Your task to perform on an android device: Open Android settings Image 0: 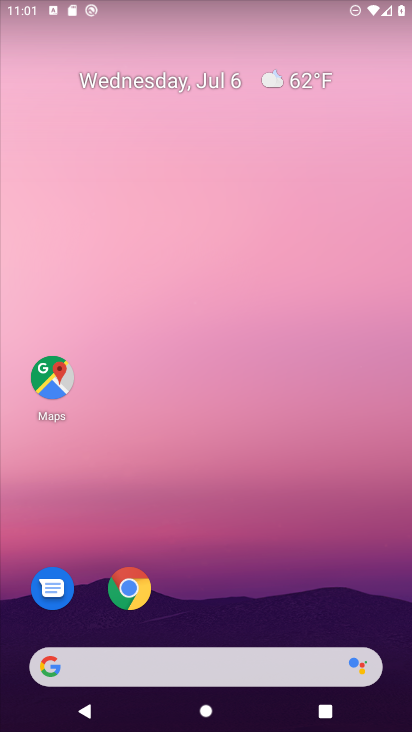
Step 0: drag from (383, 607) to (345, 51)
Your task to perform on an android device: Open Android settings Image 1: 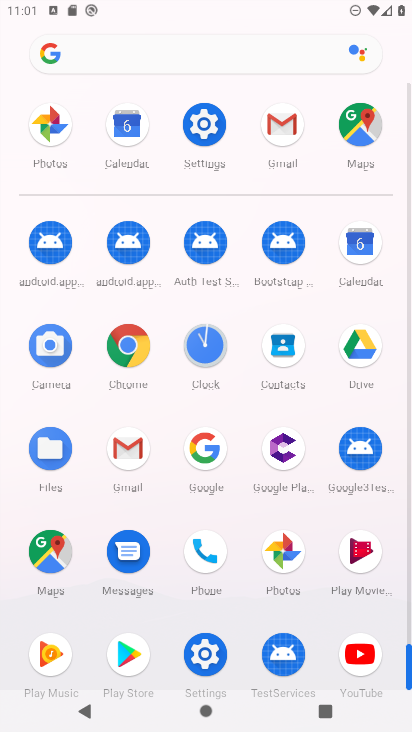
Step 1: click (411, 589)
Your task to perform on an android device: Open Android settings Image 2: 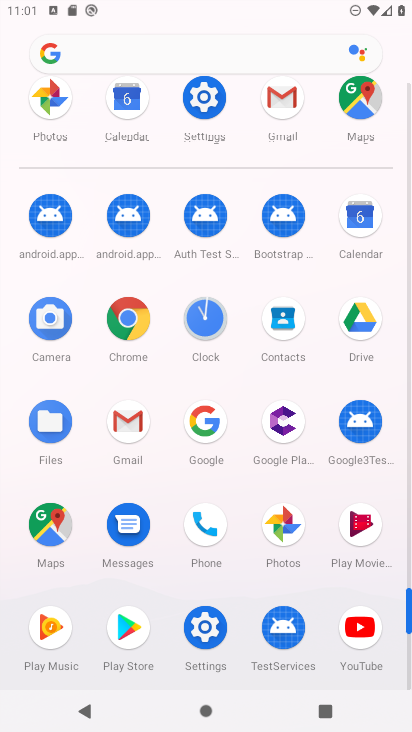
Step 2: click (203, 631)
Your task to perform on an android device: Open Android settings Image 3: 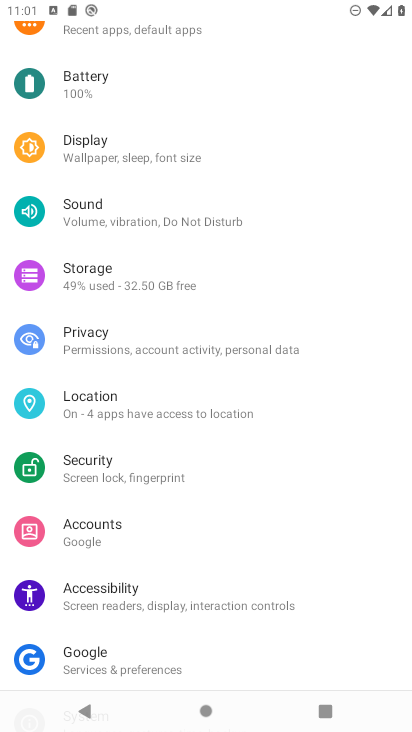
Step 3: drag from (323, 656) to (317, 187)
Your task to perform on an android device: Open Android settings Image 4: 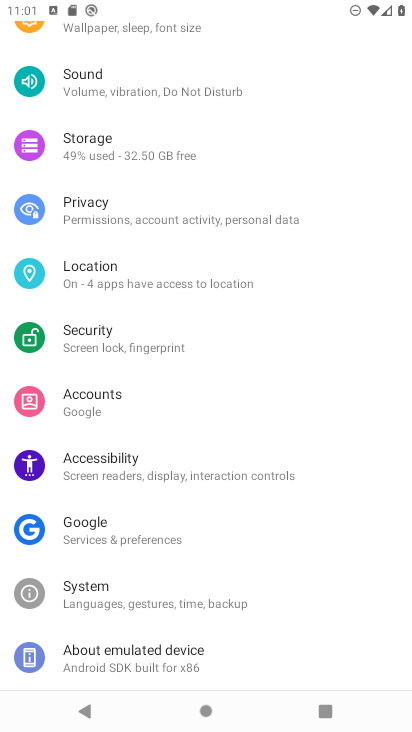
Step 4: click (105, 663)
Your task to perform on an android device: Open Android settings Image 5: 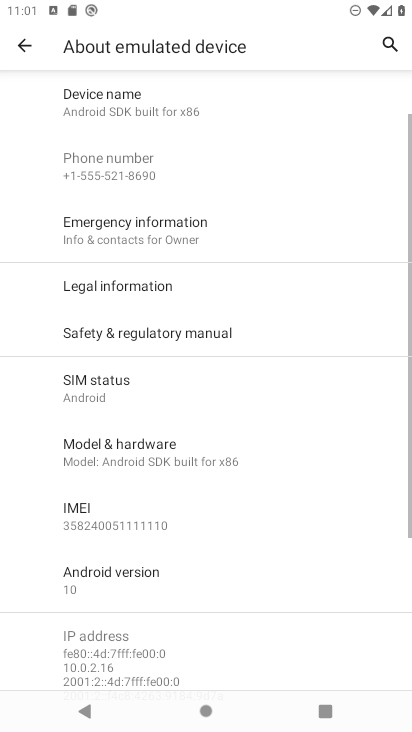
Step 5: task complete